Your task to perform on an android device: turn vacation reply on in the gmail app Image 0: 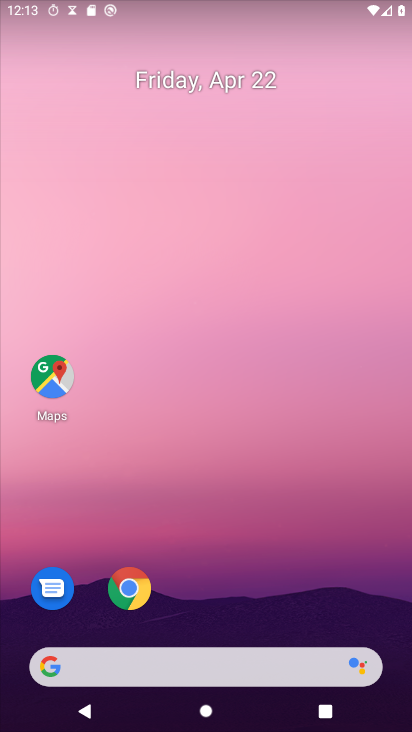
Step 0: drag from (320, 524) to (380, 56)
Your task to perform on an android device: turn vacation reply on in the gmail app Image 1: 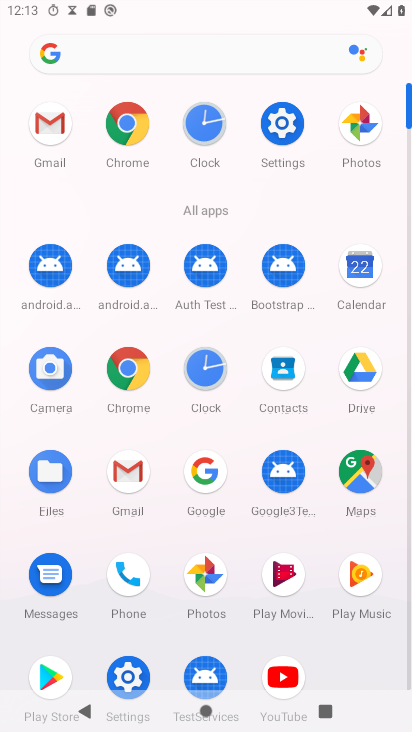
Step 1: click (132, 473)
Your task to perform on an android device: turn vacation reply on in the gmail app Image 2: 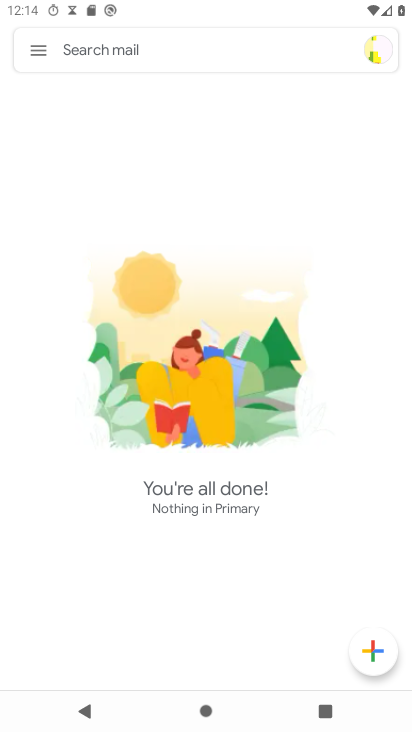
Step 2: click (45, 57)
Your task to perform on an android device: turn vacation reply on in the gmail app Image 3: 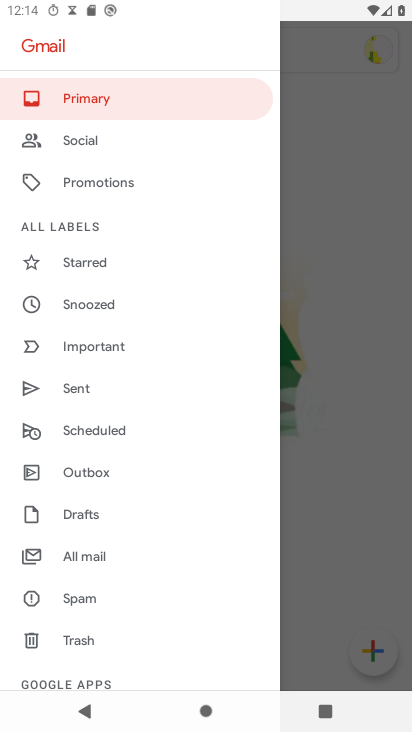
Step 3: drag from (126, 635) to (123, 573)
Your task to perform on an android device: turn vacation reply on in the gmail app Image 4: 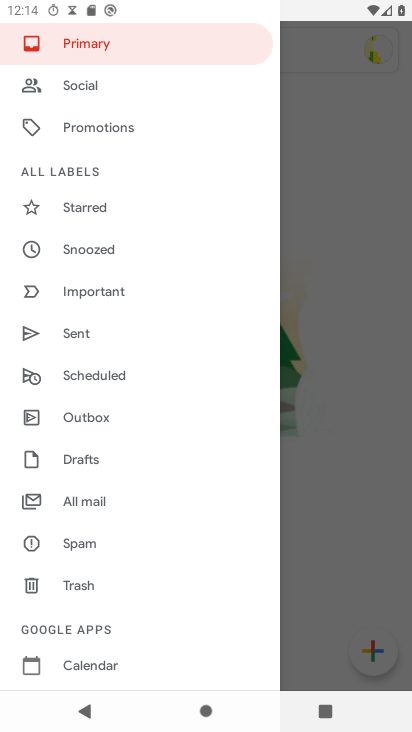
Step 4: drag from (123, 645) to (138, 526)
Your task to perform on an android device: turn vacation reply on in the gmail app Image 5: 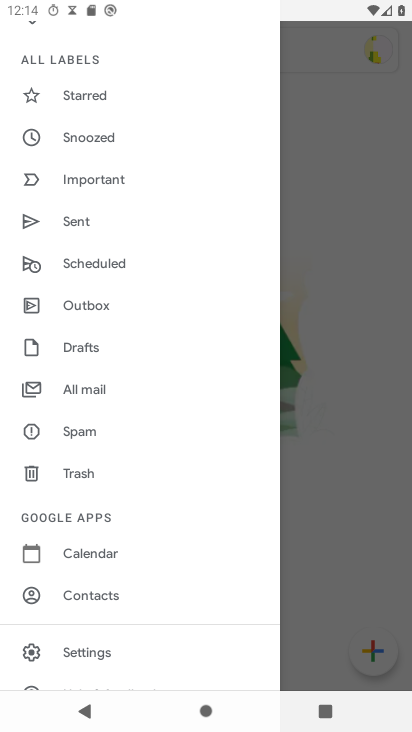
Step 5: click (150, 645)
Your task to perform on an android device: turn vacation reply on in the gmail app Image 6: 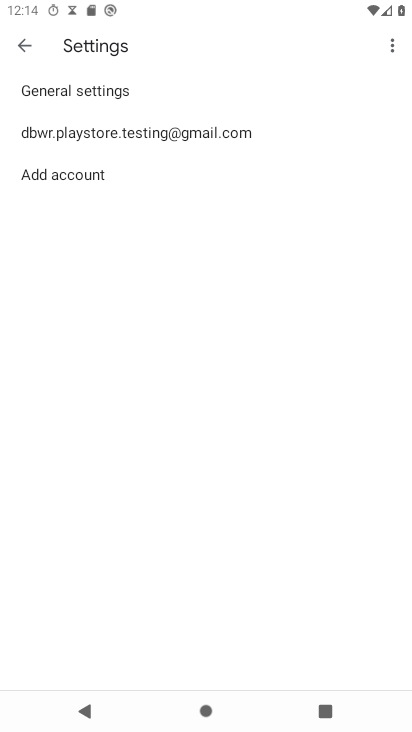
Step 6: click (191, 131)
Your task to perform on an android device: turn vacation reply on in the gmail app Image 7: 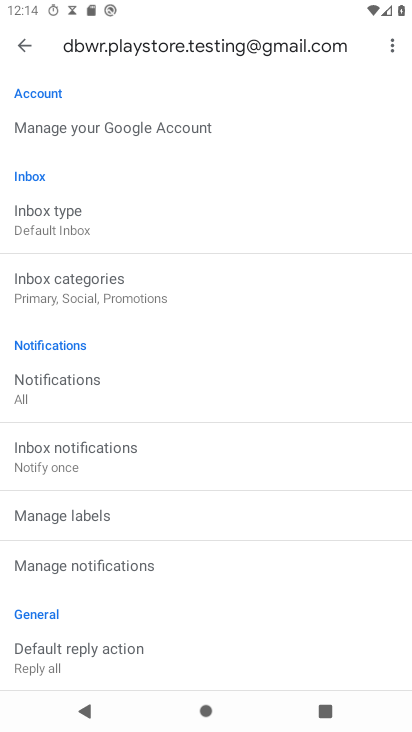
Step 7: drag from (233, 622) to (220, 555)
Your task to perform on an android device: turn vacation reply on in the gmail app Image 8: 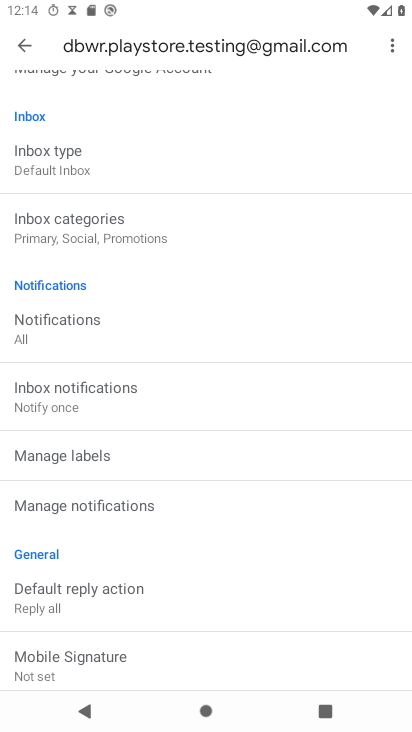
Step 8: drag from (214, 621) to (209, 553)
Your task to perform on an android device: turn vacation reply on in the gmail app Image 9: 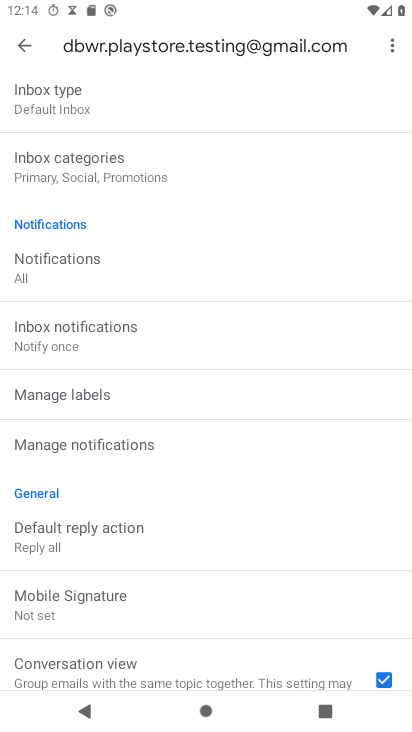
Step 9: drag from (203, 604) to (207, 513)
Your task to perform on an android device: turn vacation reply on in the gmail app Image 10: 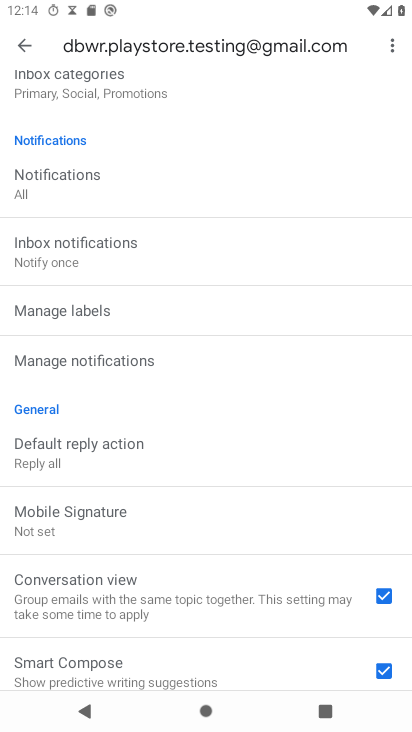
Step 10: drag from (220, 625) to (227, 533)
Your task to perform on an android device: turn vacation reply on in the gmail app Image 11: 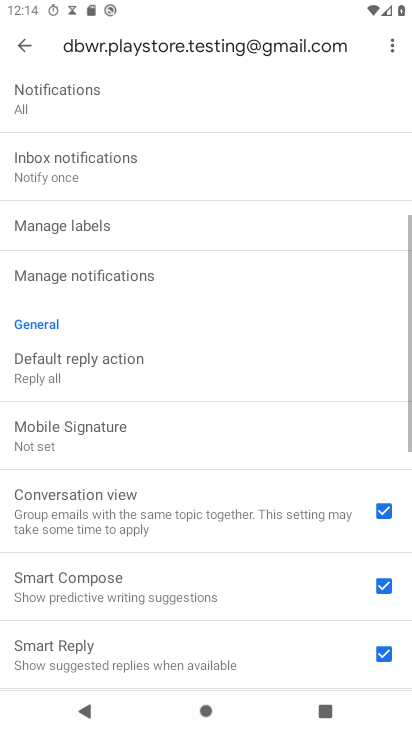
Step 11: drag from (240, 663) to (263, 97)
Your task to perform on an android device: turn vacation reply on in the gmail app Image 12: 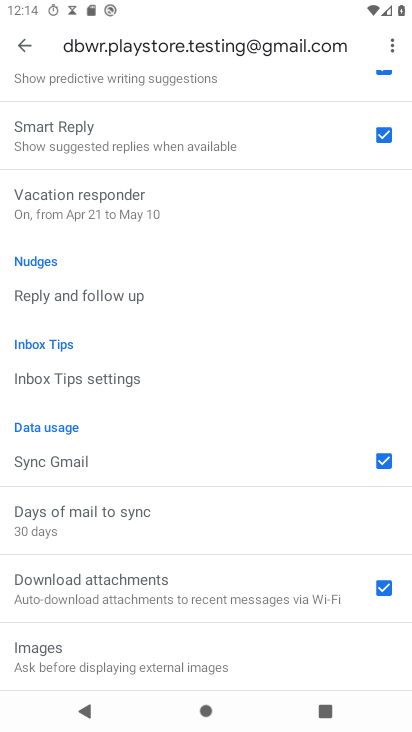
Step 12: click (217, 192)
Your task to perform on an android device: turn vacation reply on in the gmail app Image 13: 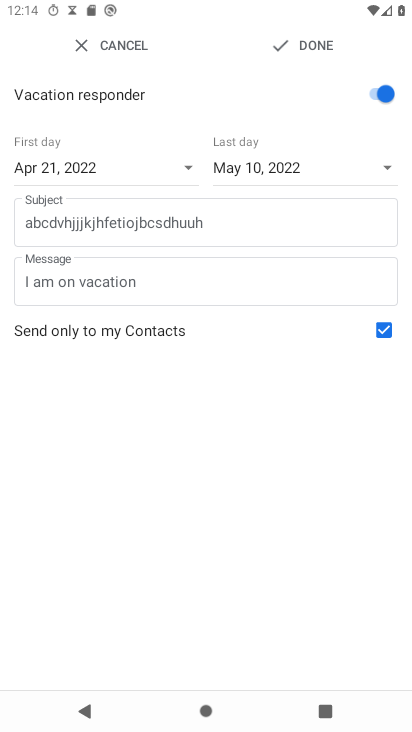
Step 13: click (320, 43)
Your task to perform on an android device: turn vacation reply on in the gmail app Image 14: 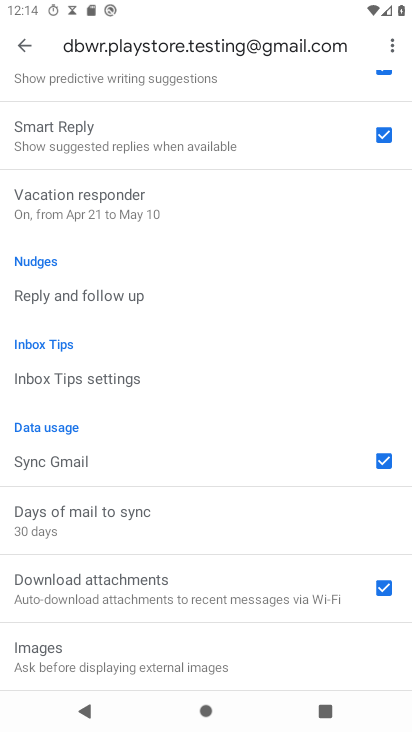
Step 14: task complete